Your task to perform on an android device: When is my next meeting? Image 0: 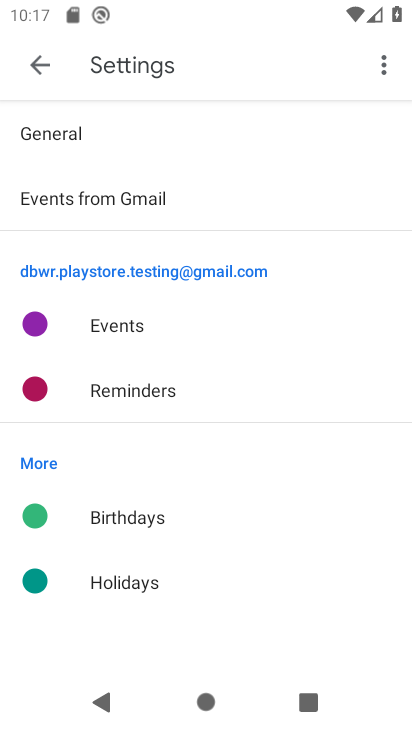
Step 0: press home button
Your task to perform on an android device: When is my next meeting? Image 1: 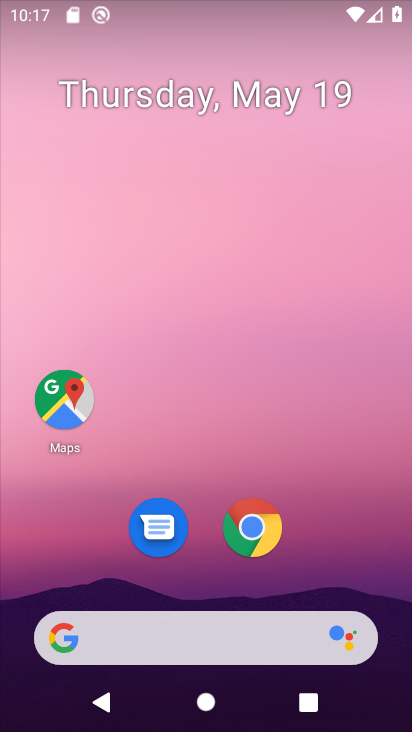
Step 1: drag from (366, 561) to (218, 65)
Your task to perform on an android device: When is my next meeting? Image 2: 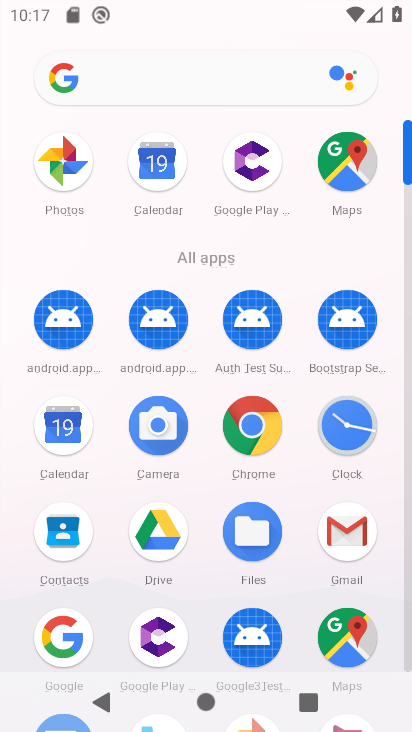
Step 2: click (61, 433)
Your task to perform on an android device: When is my next meeting? Image 3: 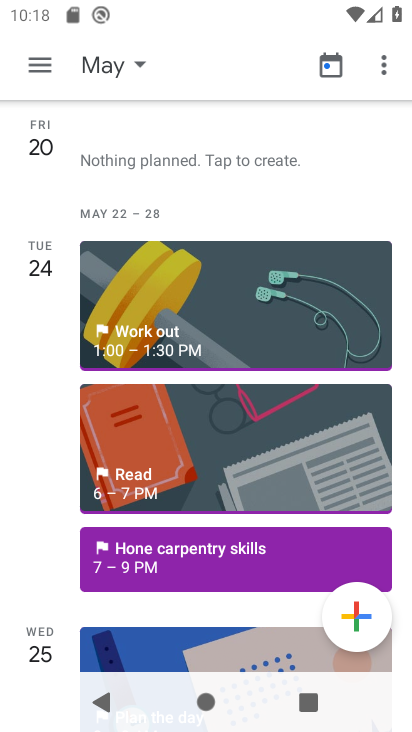
Step 3: task complete